Your task to perform on an android device: Open maps Image 0: 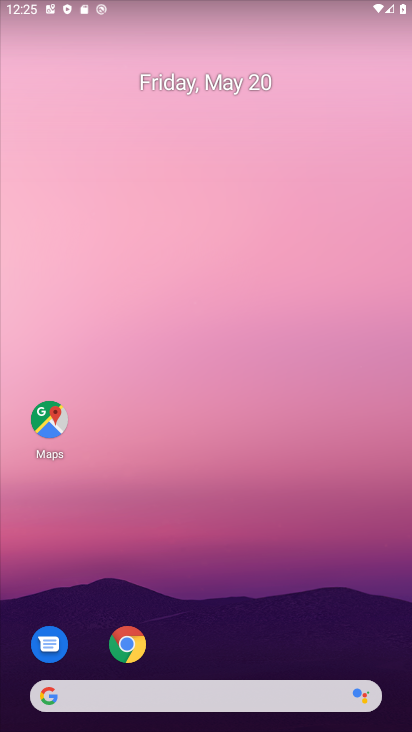
Step 0: click (55, 423)
Your task to perform on an android device: Open maps Image 1: 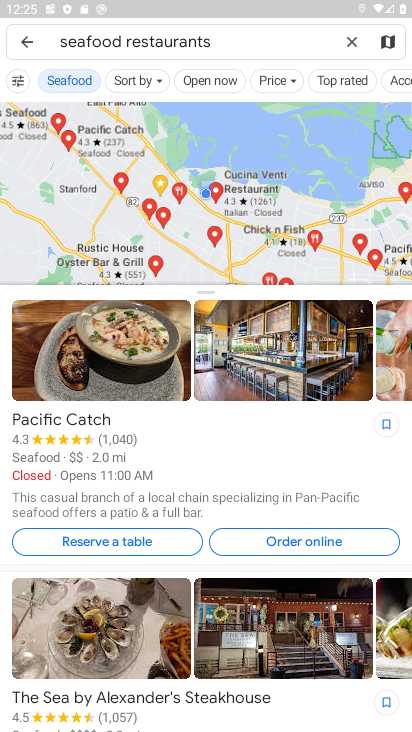
Step 1: task complete